Your task to perform on an android device: Go to accessibility settings Image 0: 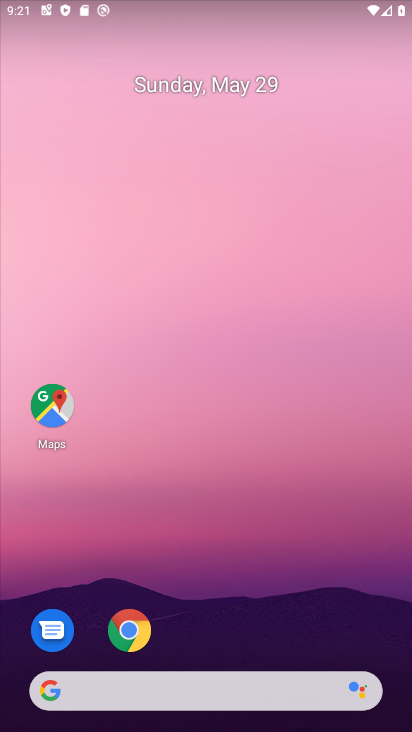
Step 0: drag from (353, 626) to (333, 113)
Your task to perform on an android device: Go to accessibility settings Image 1: 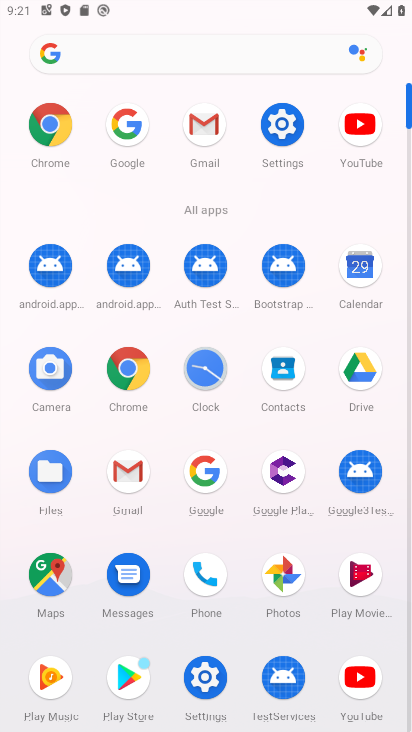
Step 1: click (208, 689)
Your task to perform on an android device: Go to accessibility settings Image 2: 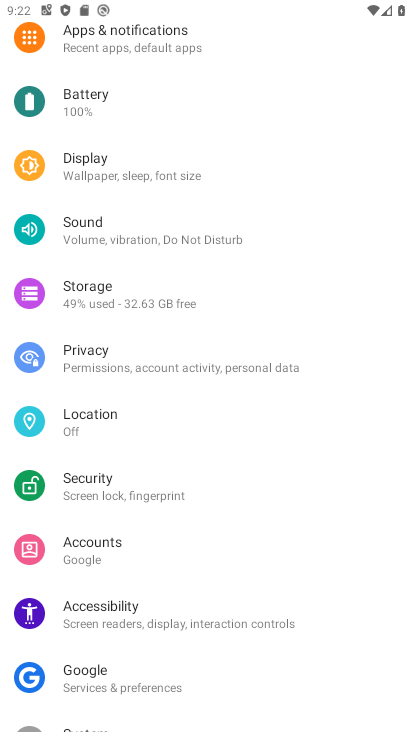
Step 2: click (125, 605)
Your task to perform on an android device: Go to accessibility settings Image 3: 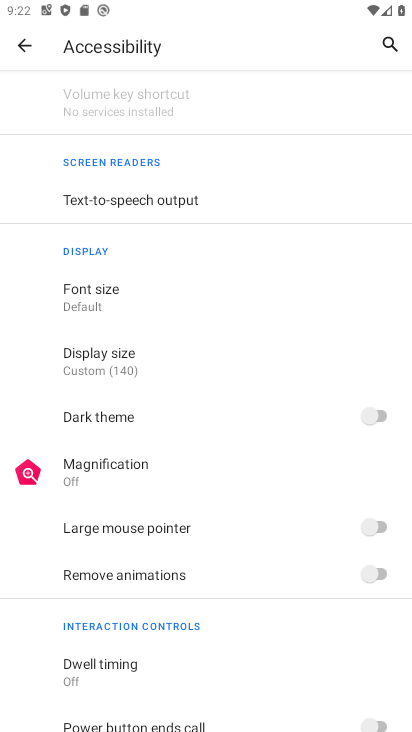
Step 3: task complete